Your task to perform on an android device: Open wifi settings Image 0: 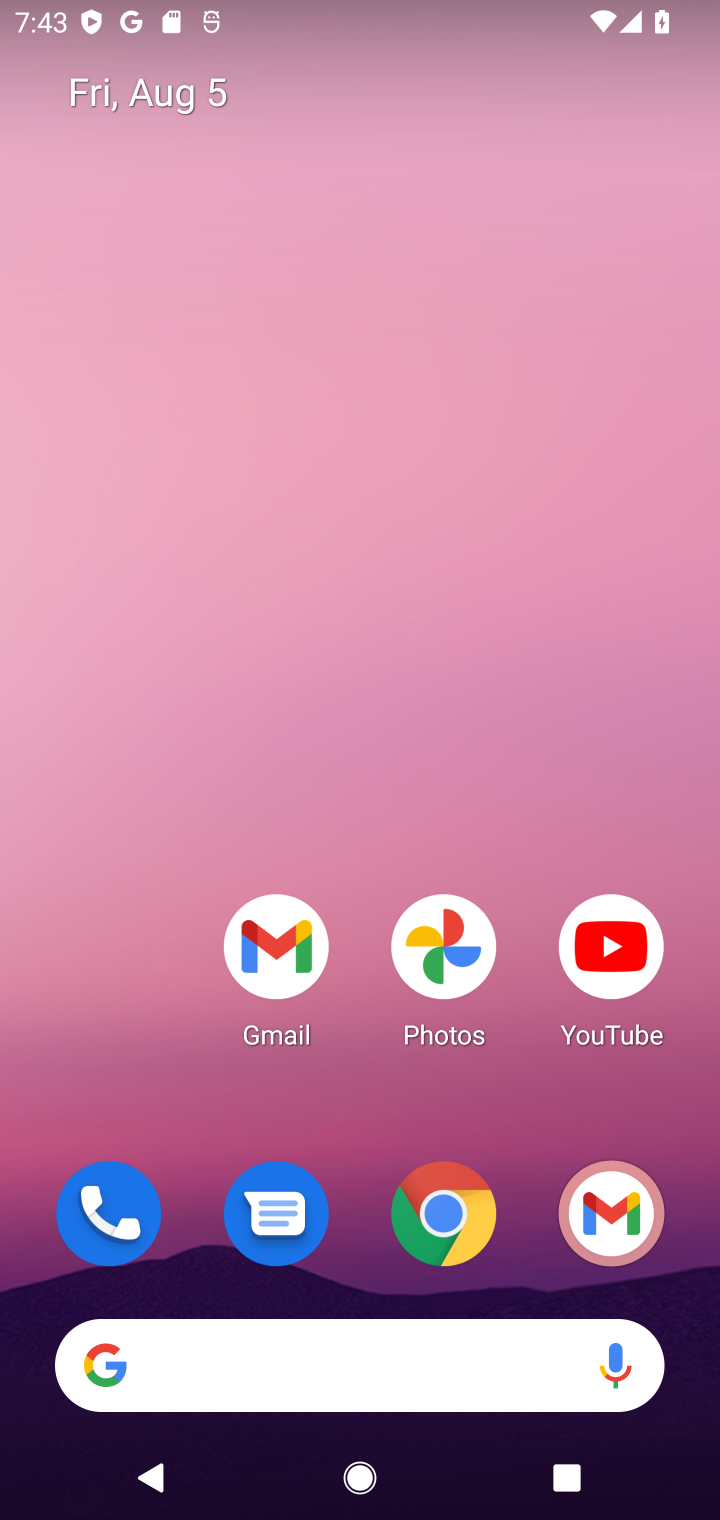
Step 0: drag from (442, 1147) to (450, 197)
Your task to perform on an android device: Open wifi settings Image 1: 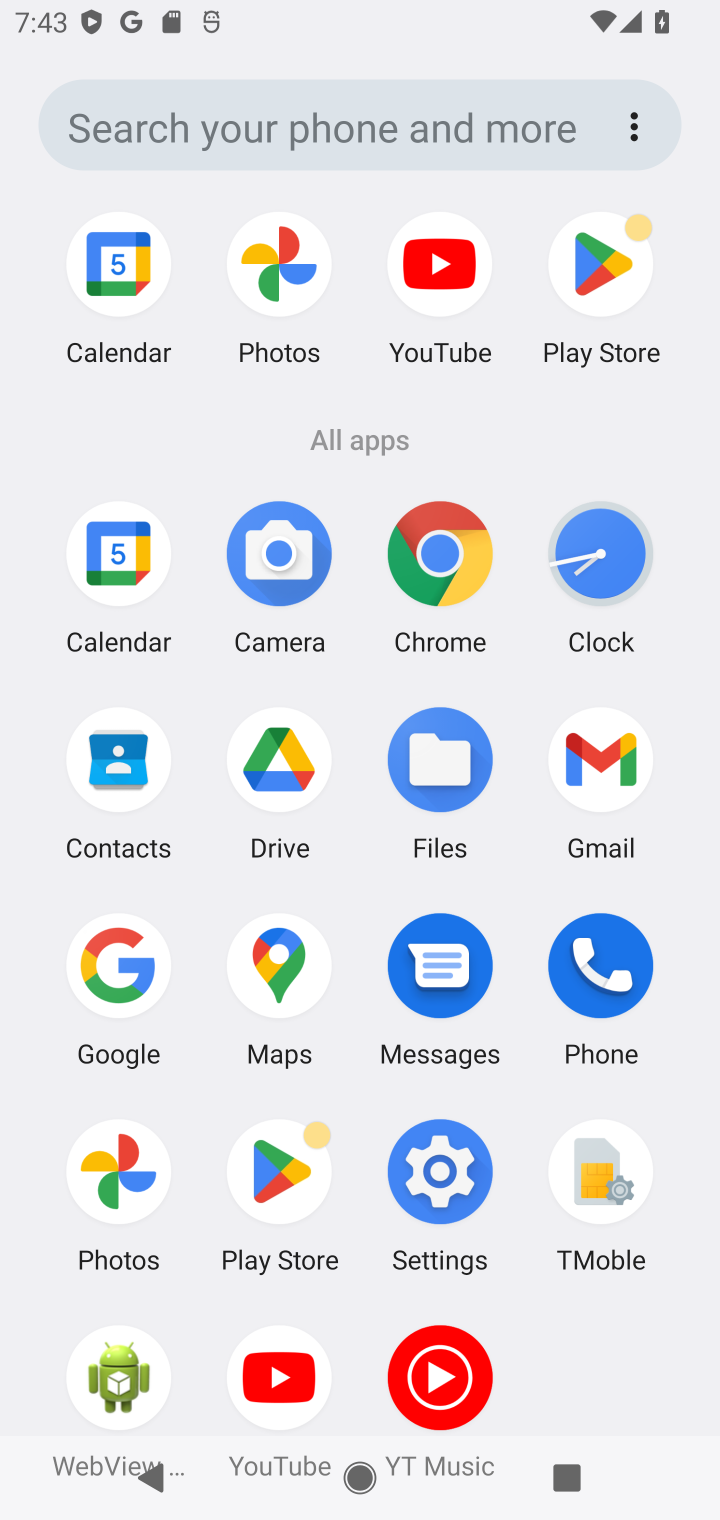
Step 1: click (406, 1178)
Your task to perform on an android device: Open wifi settings Image 2: 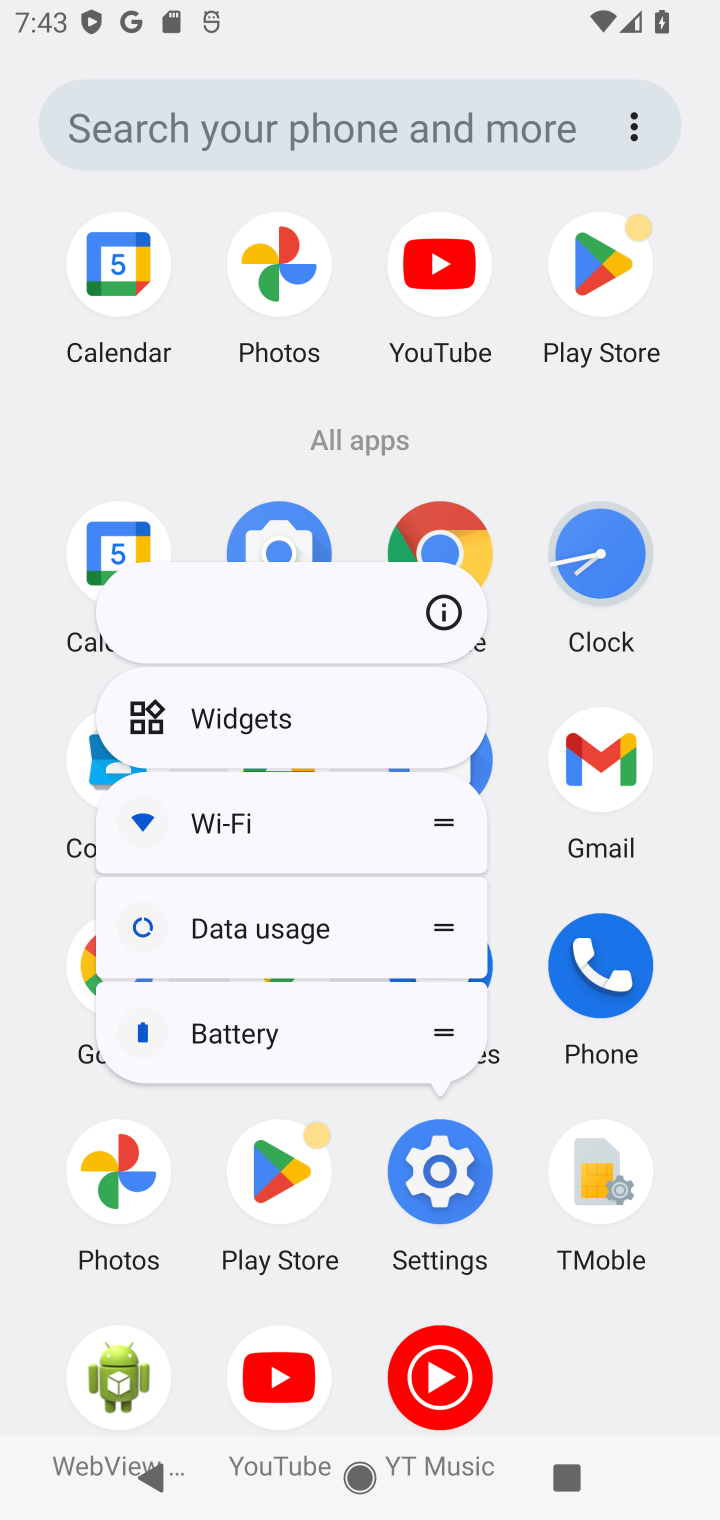
Step 2: click (432, 1157)
Your task to perform on an android device: Open wifi settings Image 3: 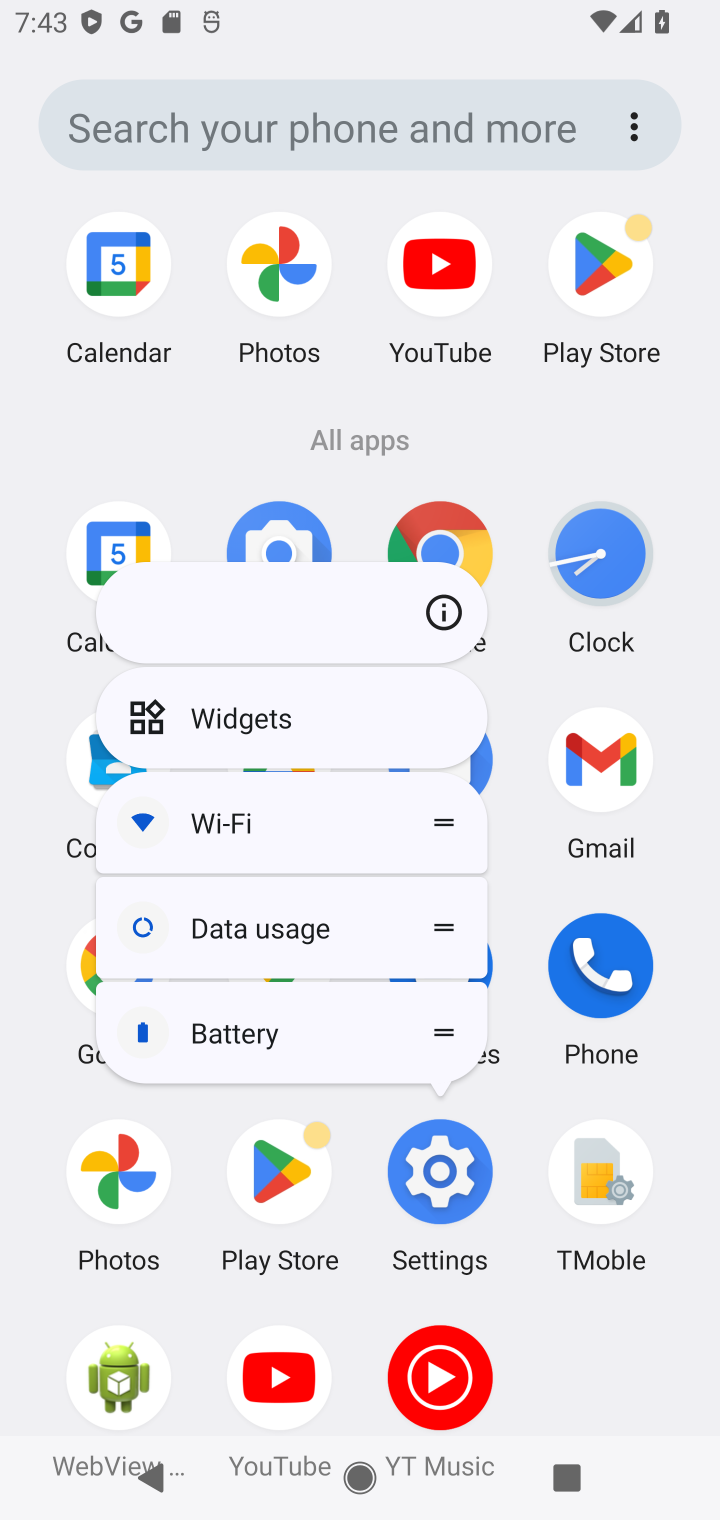
Step 3: click (432, 1157)
Your task to perform on an android device: Open wifi settings Image 4: 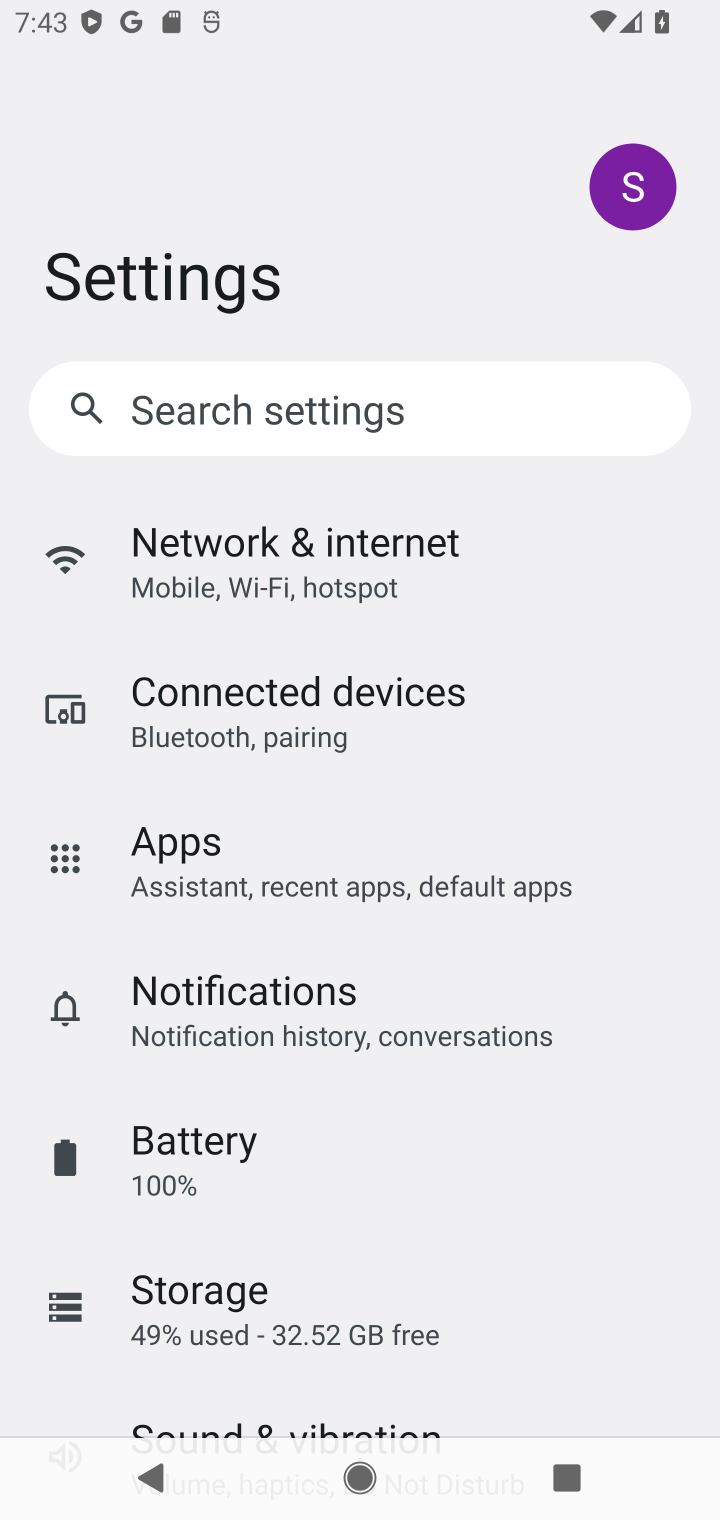
Step 4: click (245, 552)
Your task to perform on an android device: Open wifi settings Image 5: 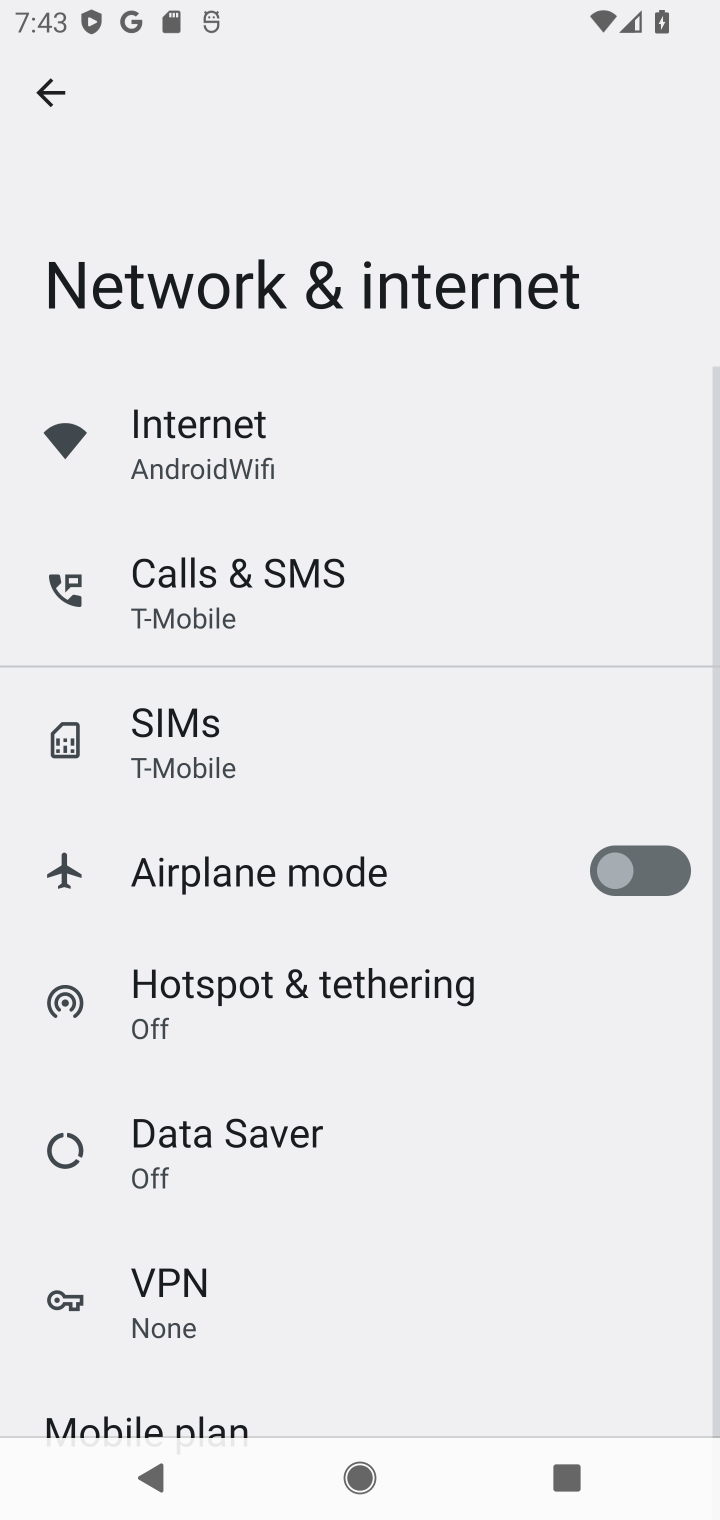
Step 5: click (237, 438)
Your task to perform on an android device: Open wifi settings Image 6: 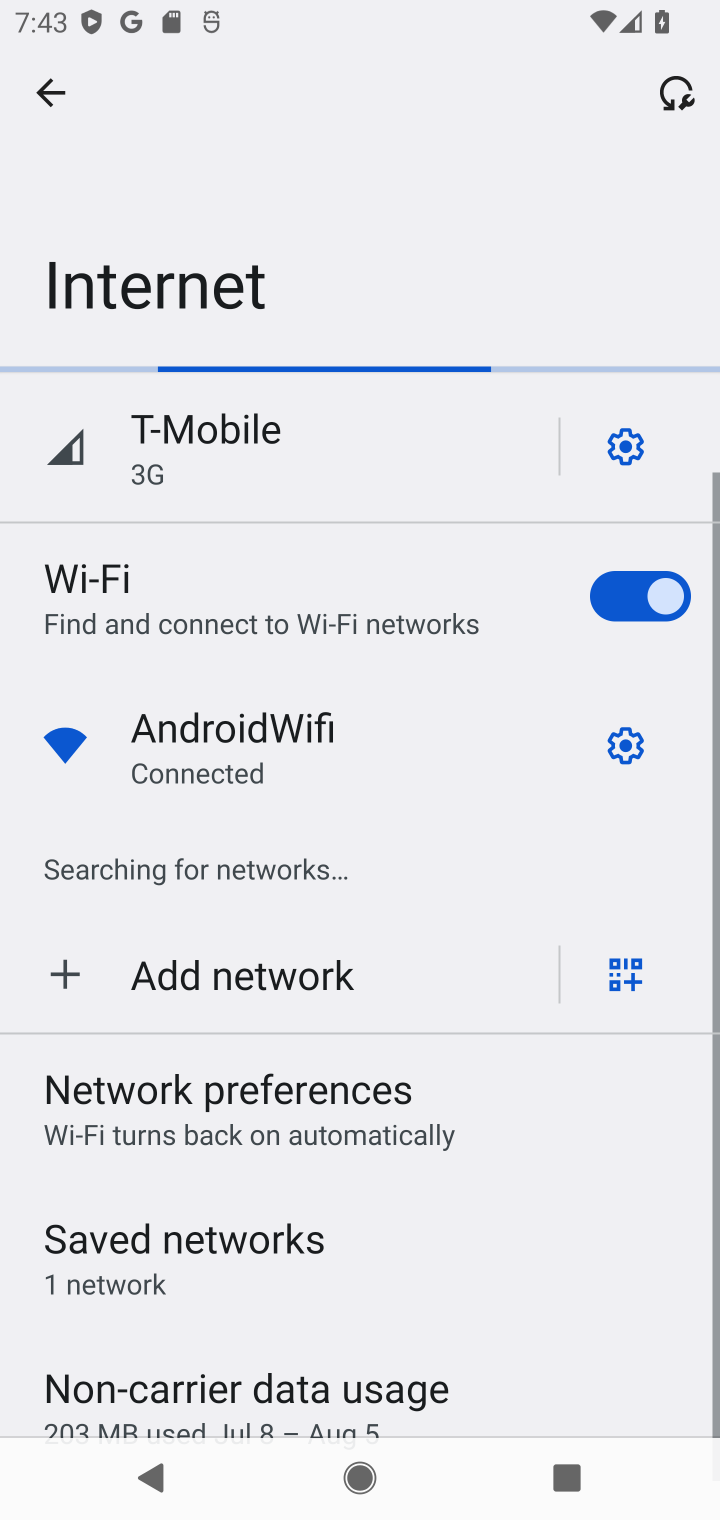
Step 6: click (288, 598)
Your task to perform on an android device: Open wifi settings Image 7: 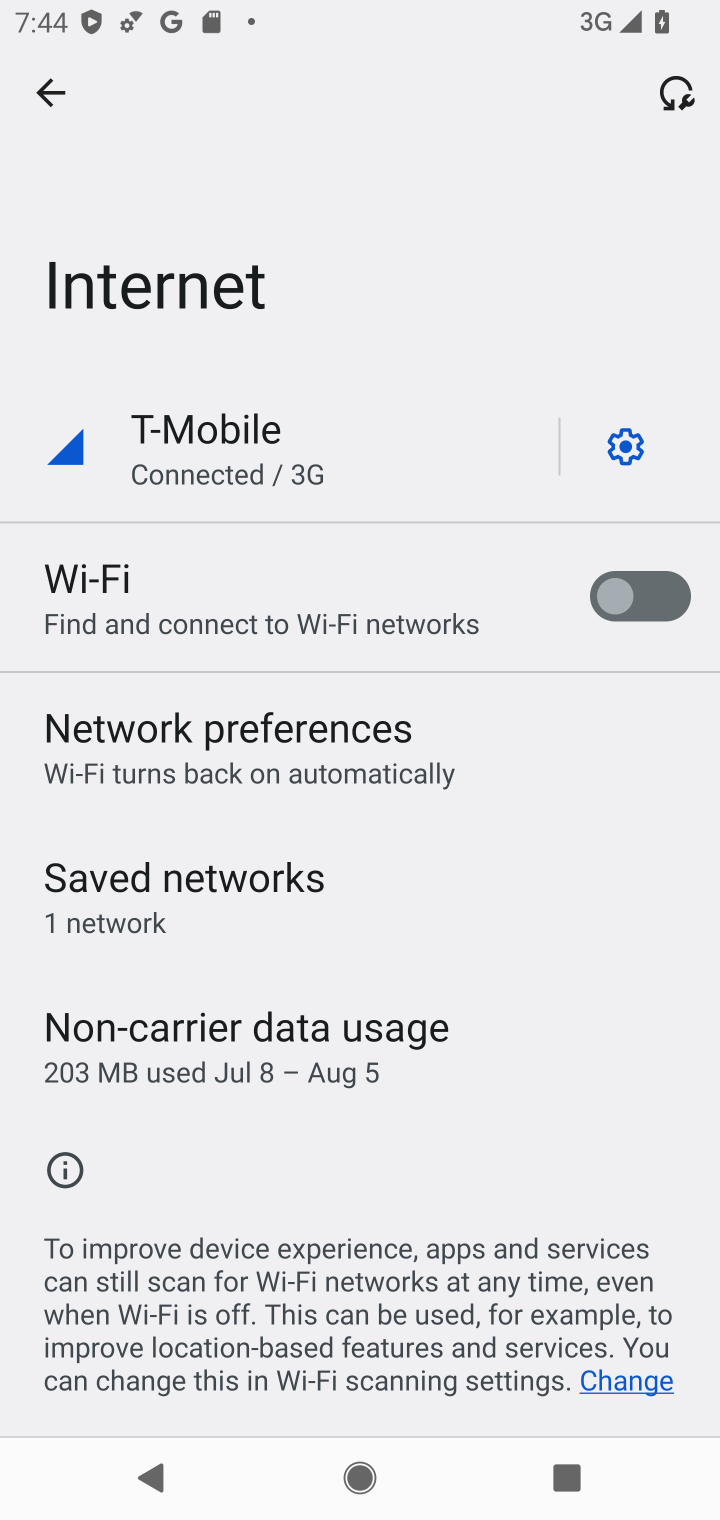
Step 7: task complete